Your task to perform on an android device: Go to Amazon Image 0: 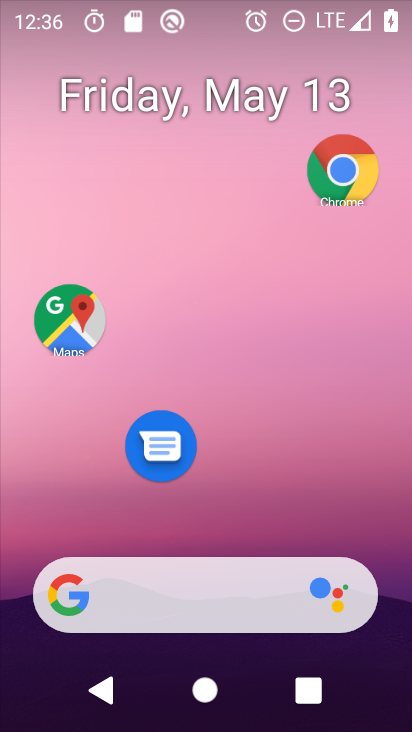
Step 0: drag from (242, 549) to (276, 58)
Your task to perform on an android device: Go to Amazon Image 1: 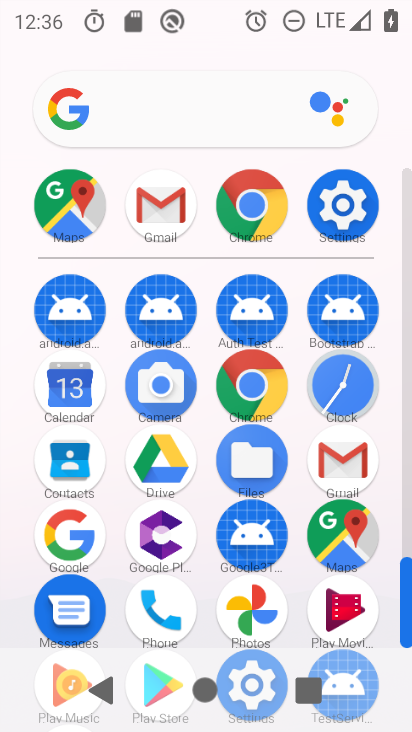
Step 1: click (247, 393)
Your task to perform on an android device: Go to Amazon Image 2: 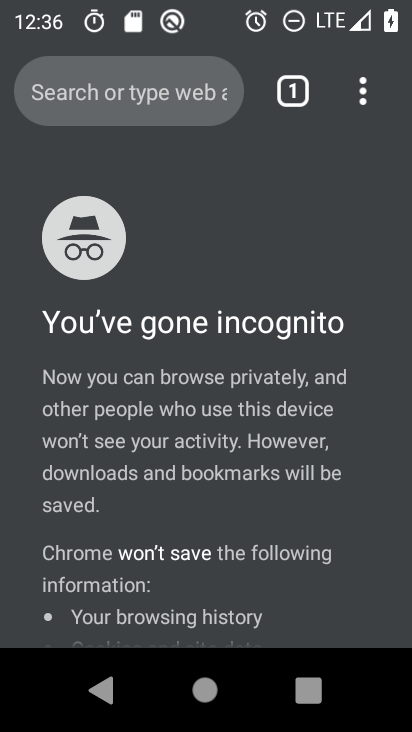
Step 2: drag from (367, 80) to (200, 163)
Your task to perform on an android device: Go to Amazon Image 3: 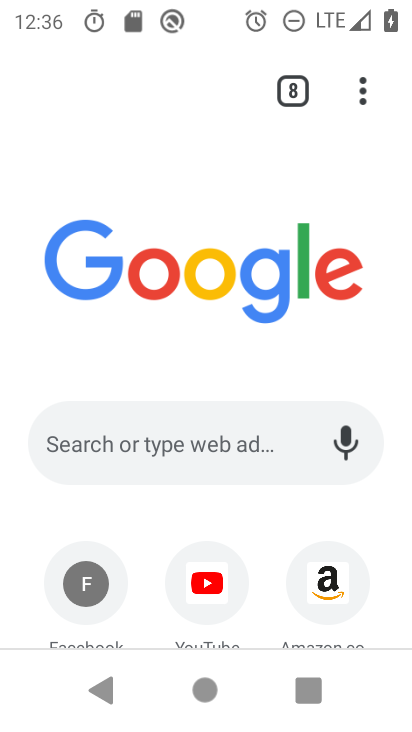
Step 3: drag from (267, 586) to (279, 191)
Your task to perform on an android device: Go to Amazon Image 4: 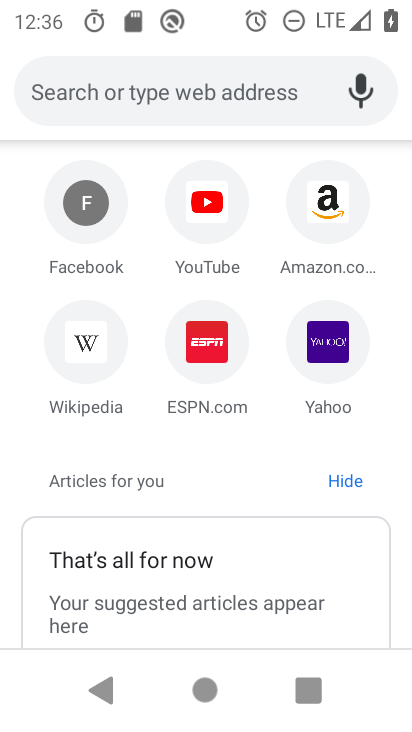
Step 4: click (325, 197)
Your task to perform on an android device: Go to Amazon Image 5: 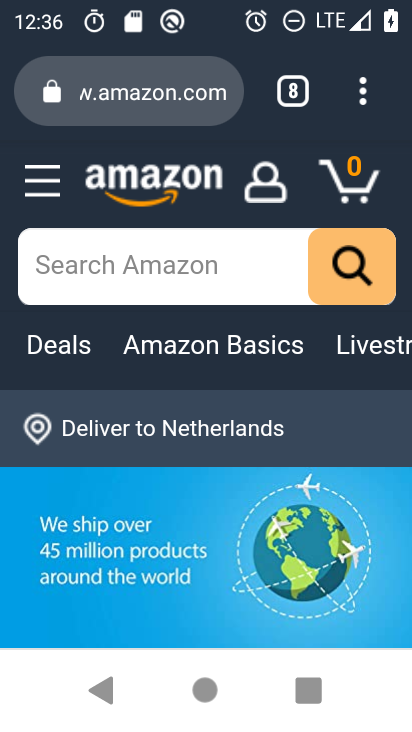
Step 5: task complete